Your task to perform on an android device: Open internet settings Image 0: 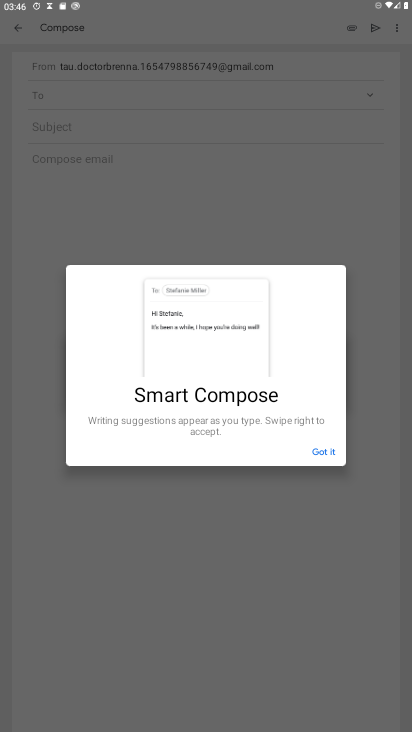
Step 0: press home button
Your task to perform on an android device: Open internet settings Image 1: 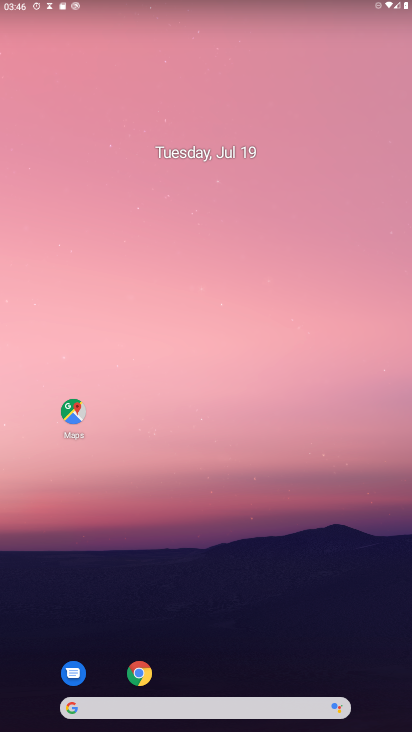
Step 1: drag from (199, 657) to (302, 89)
Your task to perform on an android device: Open internet settings Image 2: 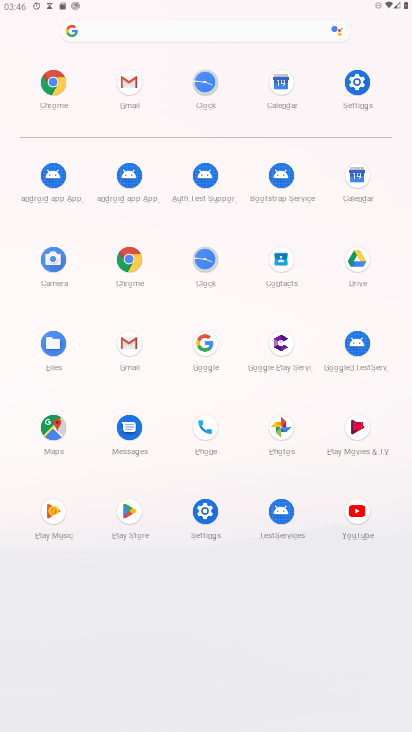
Step 2: click (195, 525)
Your task to perform on an android device: Open internet settings Image 3: 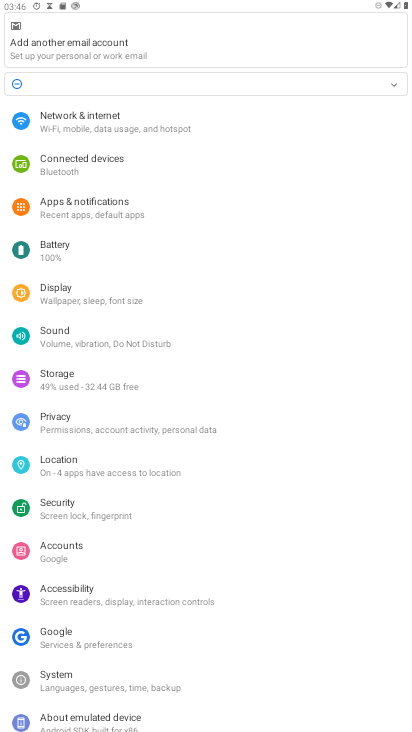
Step 3: click (102, 116)
Your task to perform on an android device: Open internet settings Image 4: 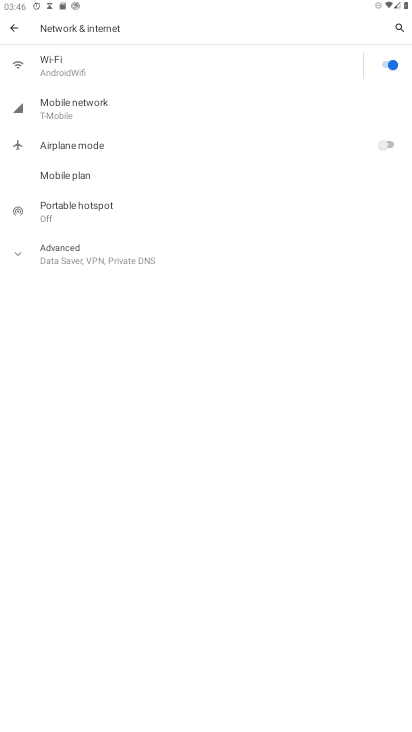
Step 4: task complete